Your task to perform on an android device: move a message to another label in the gmail app Image 0: 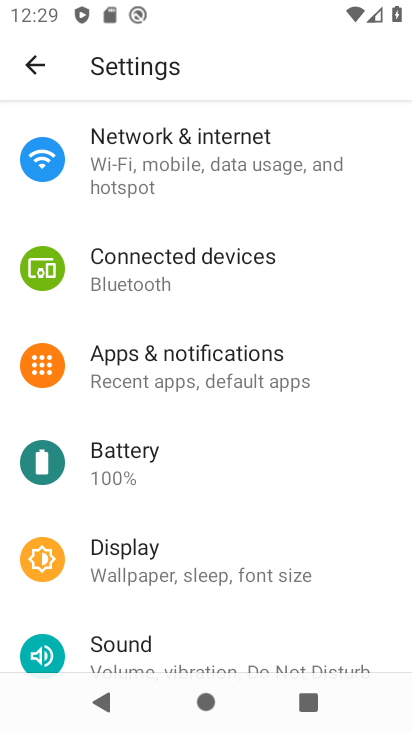
Step 0: press home button
Your task to perform on an android device: move a message to another label in the gmail app Image 1: 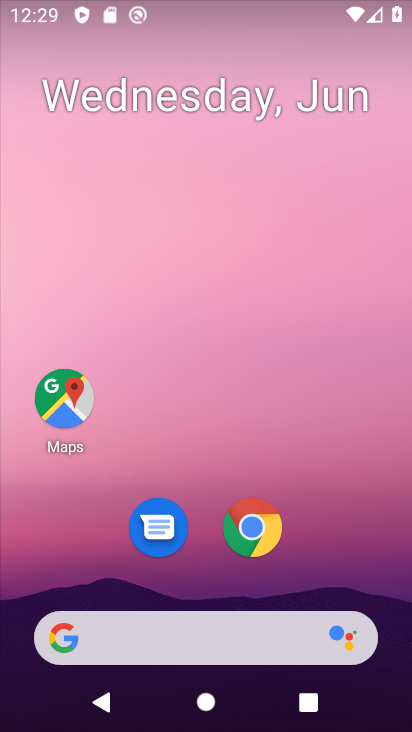
Step 1: drag from (184, 617) to (170, 76)
Your task to perform on an android device: move a message to another label in the gmail app Image 2: 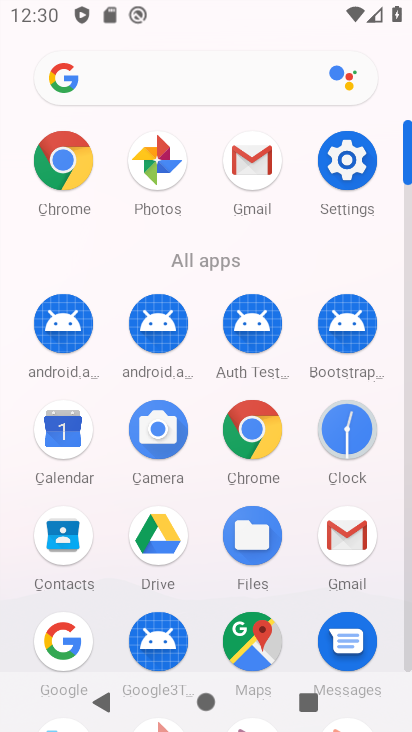
Step 2: click (251, 170)
Your task to perform on an android device: move a message to another label in the gmail app Image 3: 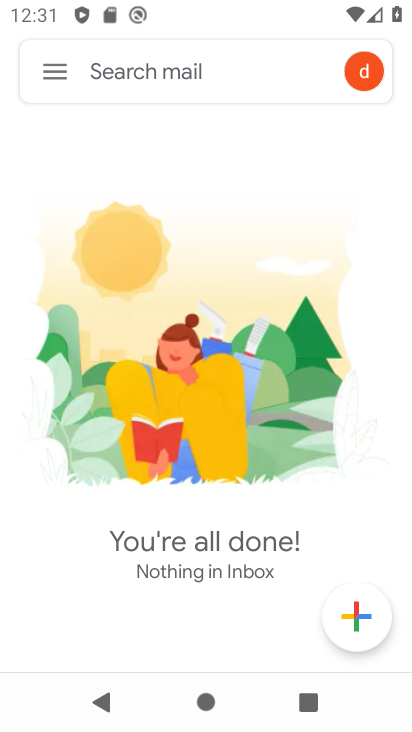
Step 3: click (57, 72)
Your task to perform on an android device: move a message to another label in the gmail app Image 4: 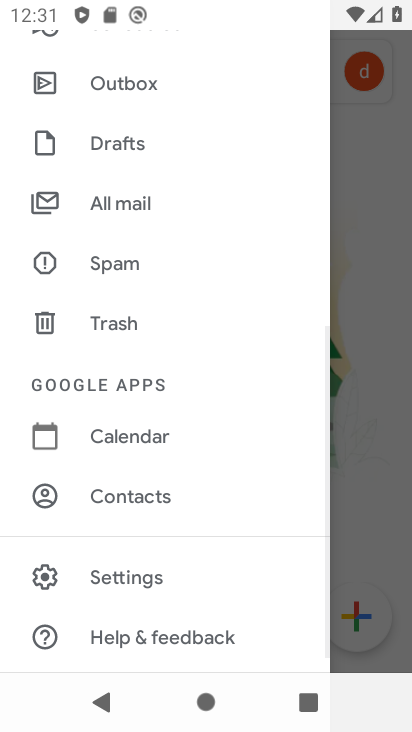
Step 4: click (121, 199)
Your task to perform on an android device: move a message to another label in the gmail app Image 5: 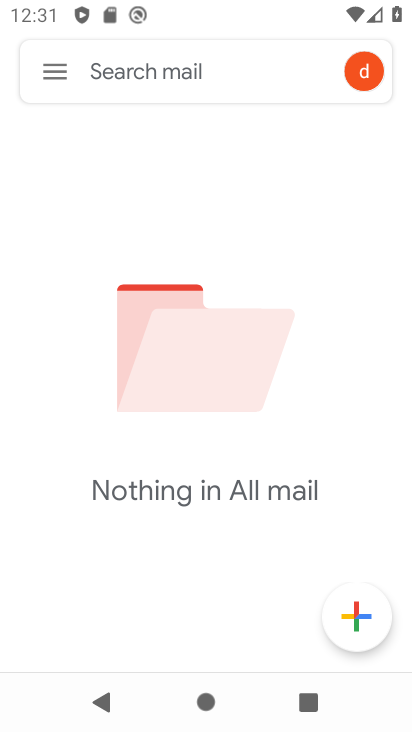
Step 5: task complete